Your task to perform on an android device: Set the phone to "Do not disturb". Image 0: 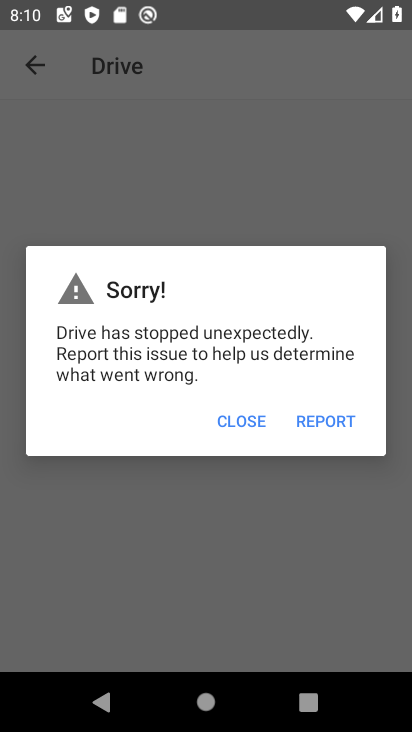
Step 0: press home button
Your task to perform on an android device: Set the phone to "Do not disturb". Image 1: 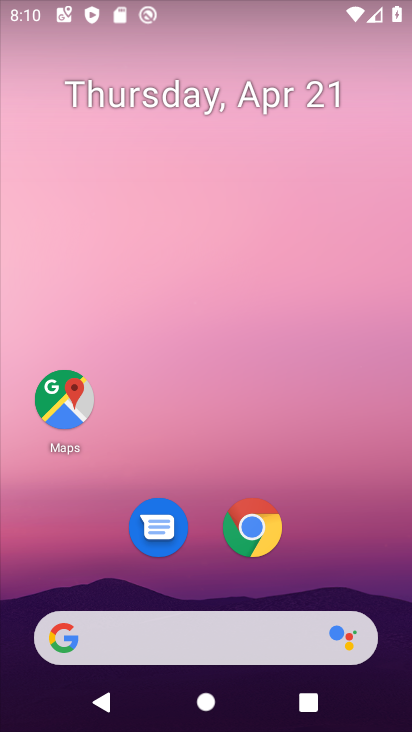
Step 1: drag from (270, 47) to (201, 326)
Your task to perform on an android device: Set the phone to "Do not disturb". Image 2: 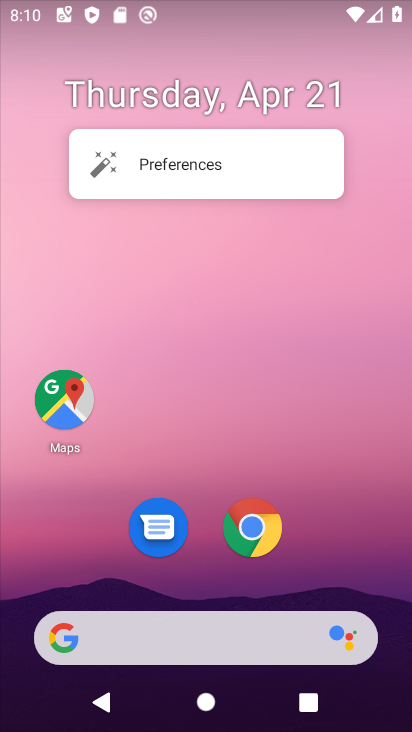
Step 2: click (368, 437)
Your task to perform on an android device: Set the phone to "Do not disturb". Image 3: 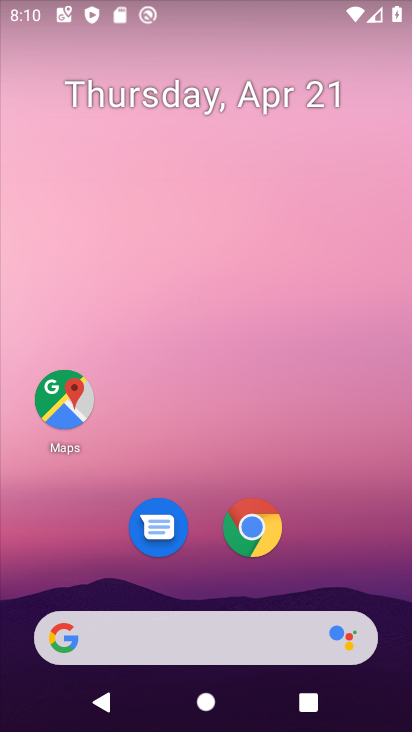
Step 3: drag from (230, 644) to (228, 588)
Your task to perform on an android device: Set the phone to "Do not disturb". Image 4: 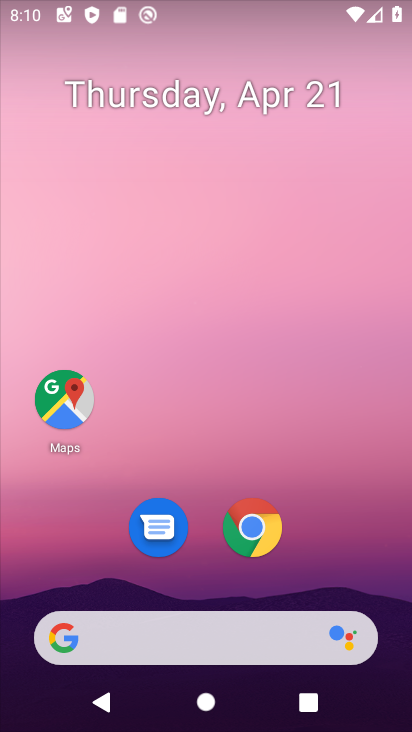
Step 4: drag from (321, 29) to (249, 506)
Your task to perform on an android device: Set the phone to "Do not disturb". Image 5: 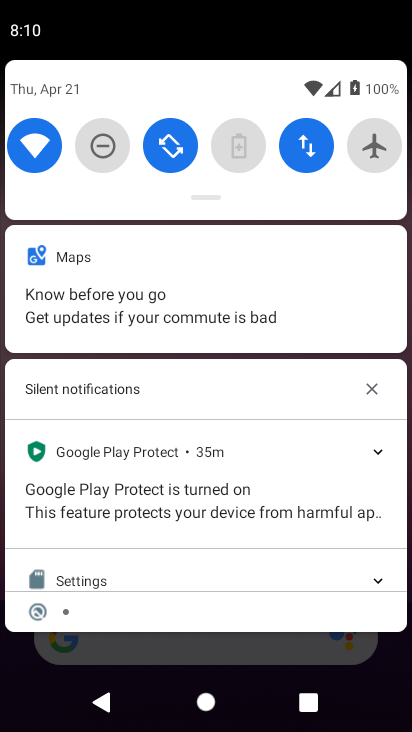
Step 5: click (108, 147)
Your task to perform on an android device: Set the phone to "Do not disturb". Image 6: 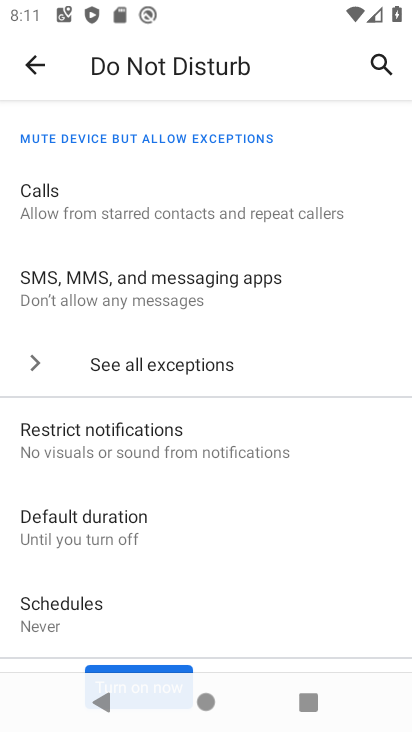
Step 6: task complete